Your task to perform on an android device: Open settings on Google Maps Image 0: 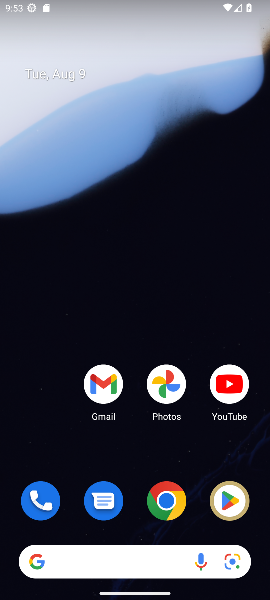
Step 0: drag from (126, 520) to (144, 162)
Your task to perform on an android device: Open settings on Google Maps Image 1: 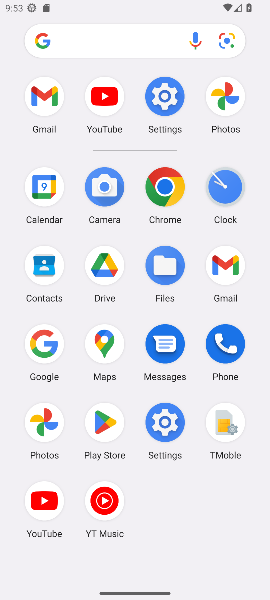
Step 1: click (105, 340)
Your task to perform on an android device: Open settings on Google Maps Image 2: 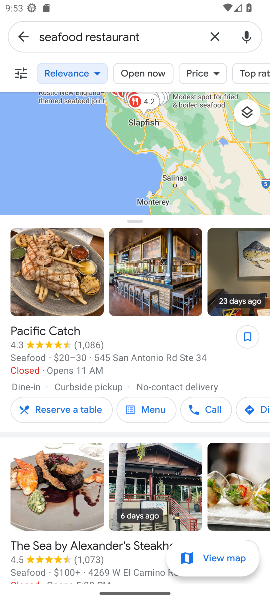
Step 2: task complete